Your task to perform on an android device: open app "WhatsApp Messenger" (install if not already installed) and enter user name: "cartons@outlook.com" and password: "approximated" Image 0: 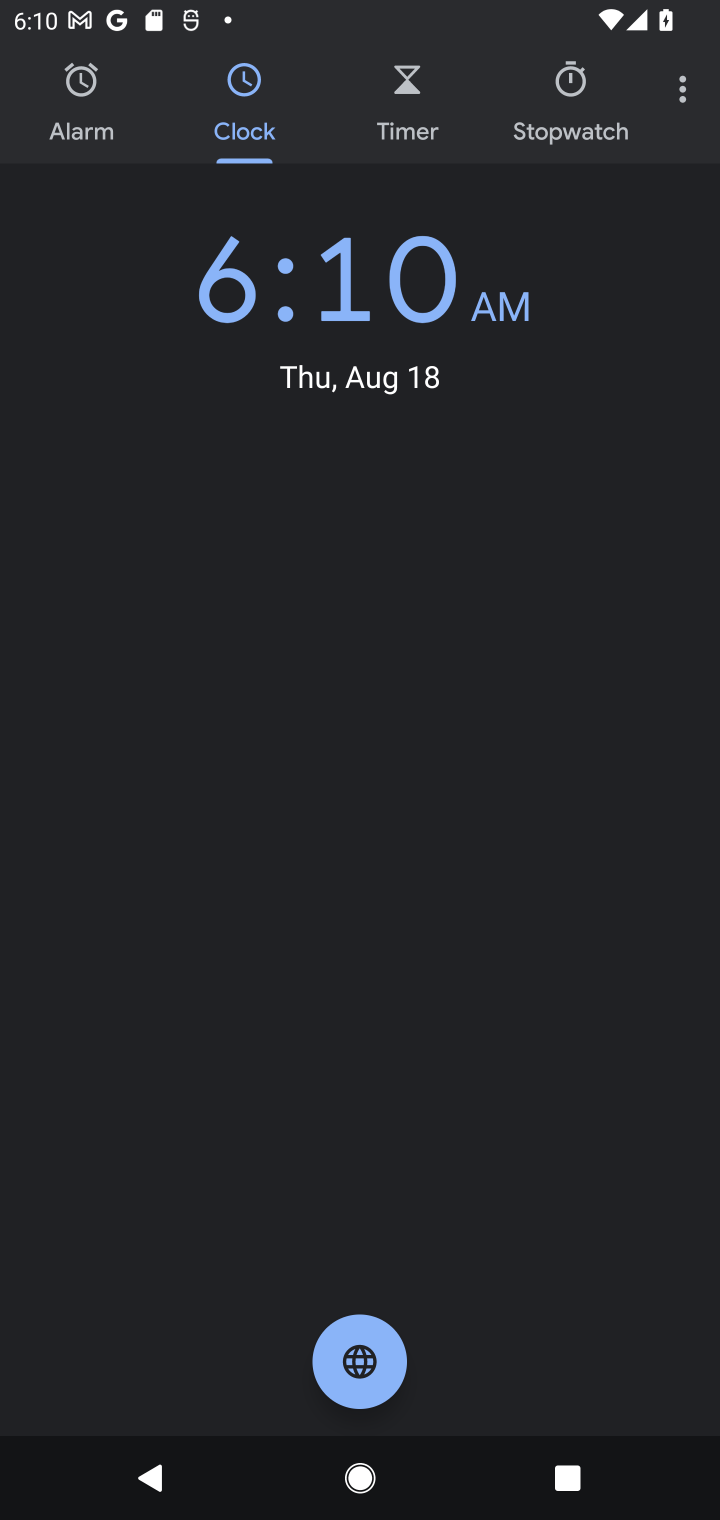
Step 0: press home button
Your task to perform on an android device: open app "WhatsApp Messenger" (install if not already installed) and enter user name: "cartons@outlook.com" and password: "approximated" Image 1: 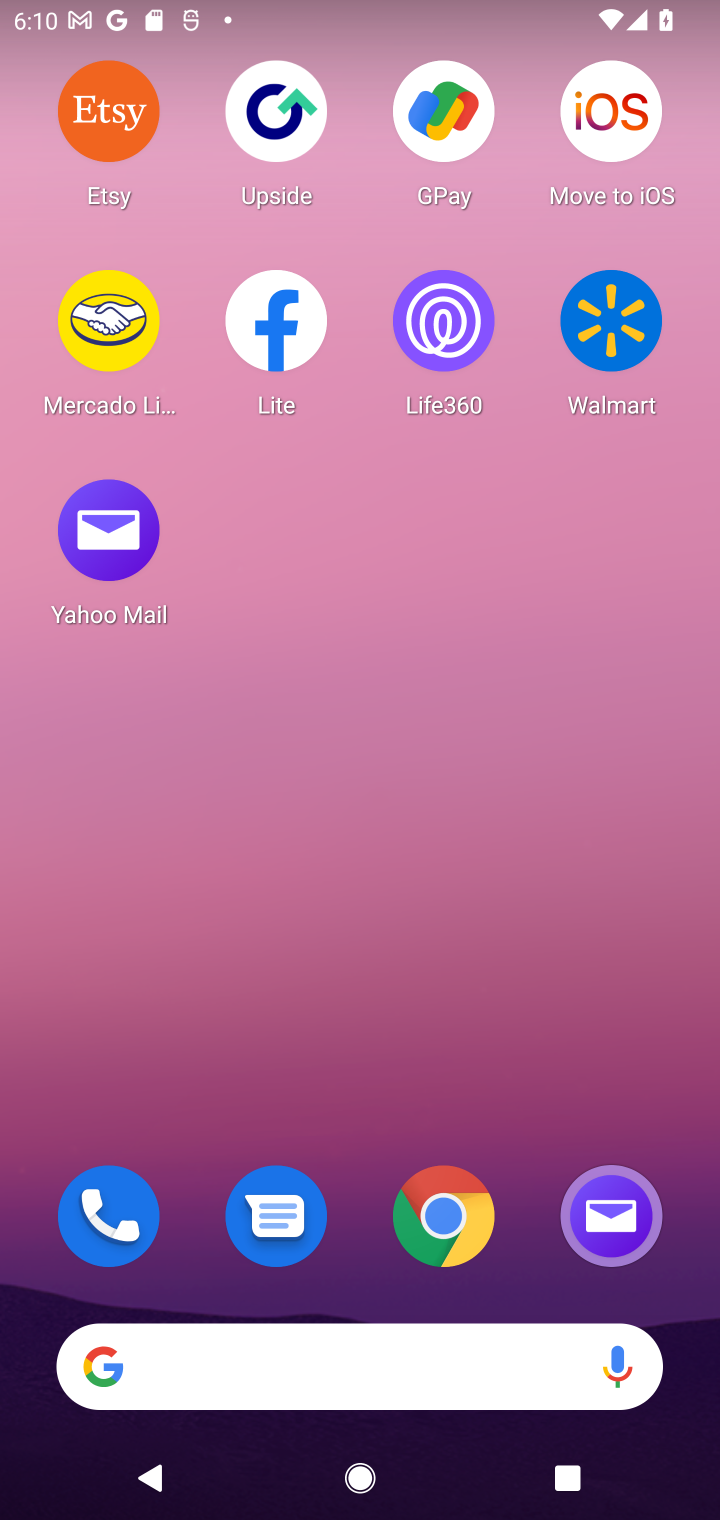
Step 1: drag from (519, 1281) to (510, 398)
Your task to perform on an android device: open app "WhatsApp Messenger" (install if not already installed) and enter user name: "cartons@outlook.com" and password: "approximated" Image 2: 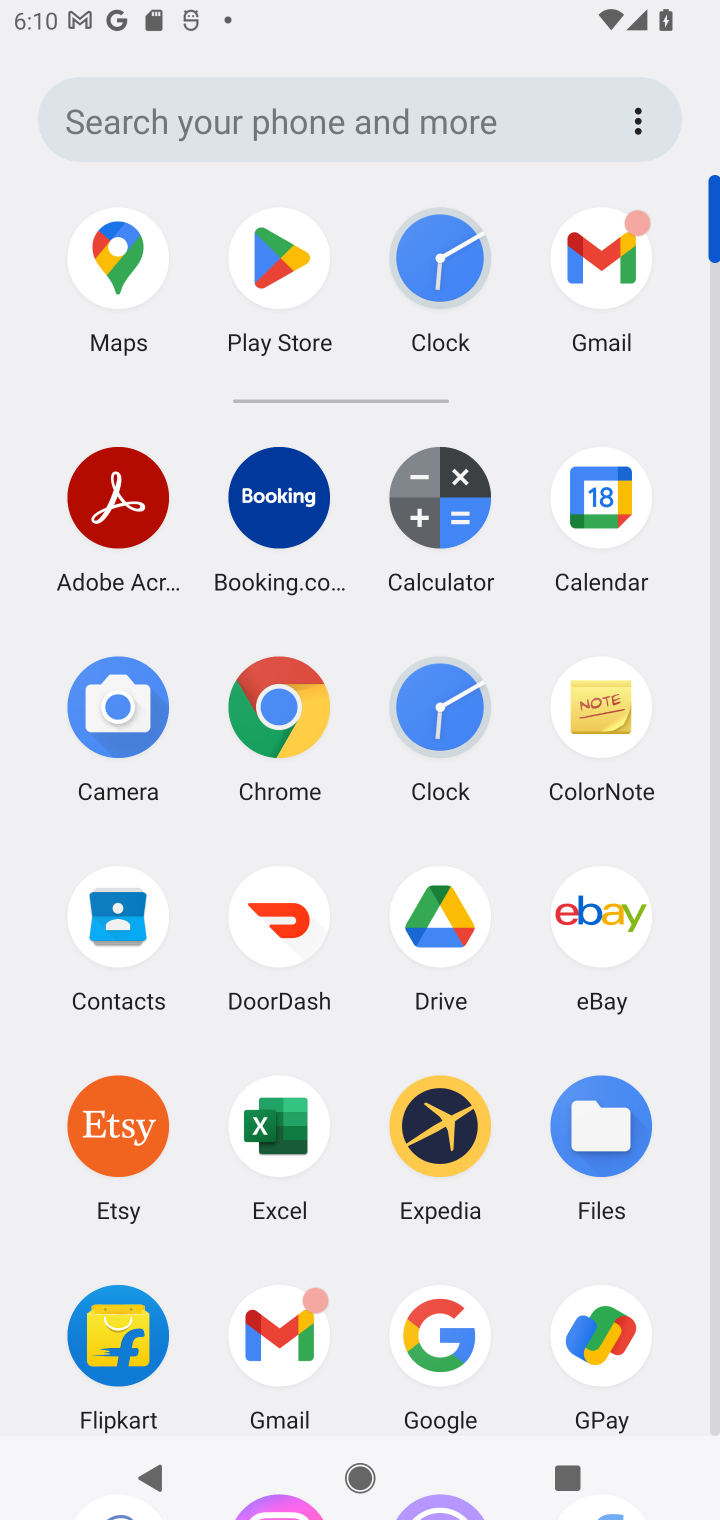
Step 2: drag from (535, 1331) to (508, 480)
Your task to perform on an android device: open app "WhatsApp Messenger" (install if not already installed) and enter user name: "cartons@outlook.com" and password: "approximated" Image 3: 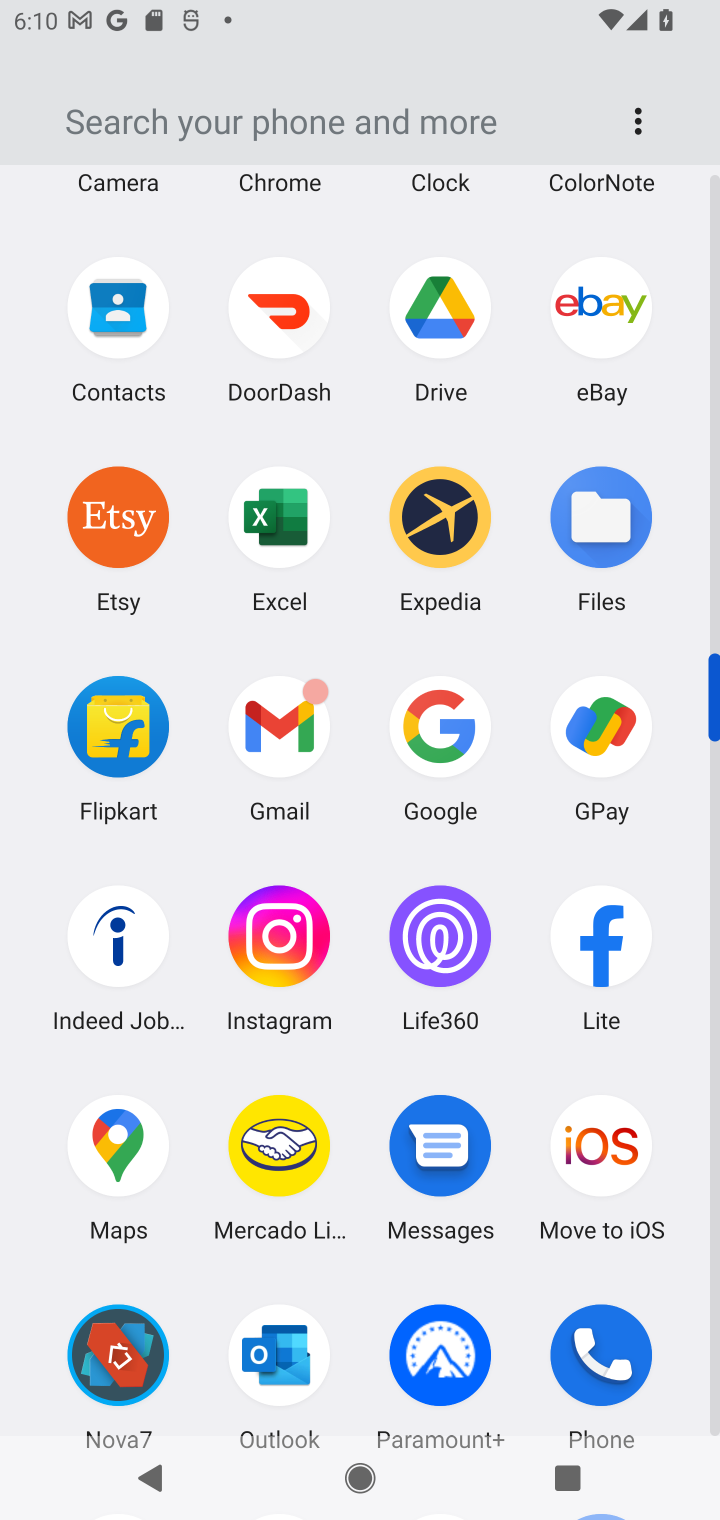
Step 3: drag from (520, 1250) to (526, 557)
Your task to perform on an android device: open app "WhatsApp Messenger" (install if not already installed) and enter user name: "cartons@outlook.com" and password: "approximated" Image 4: 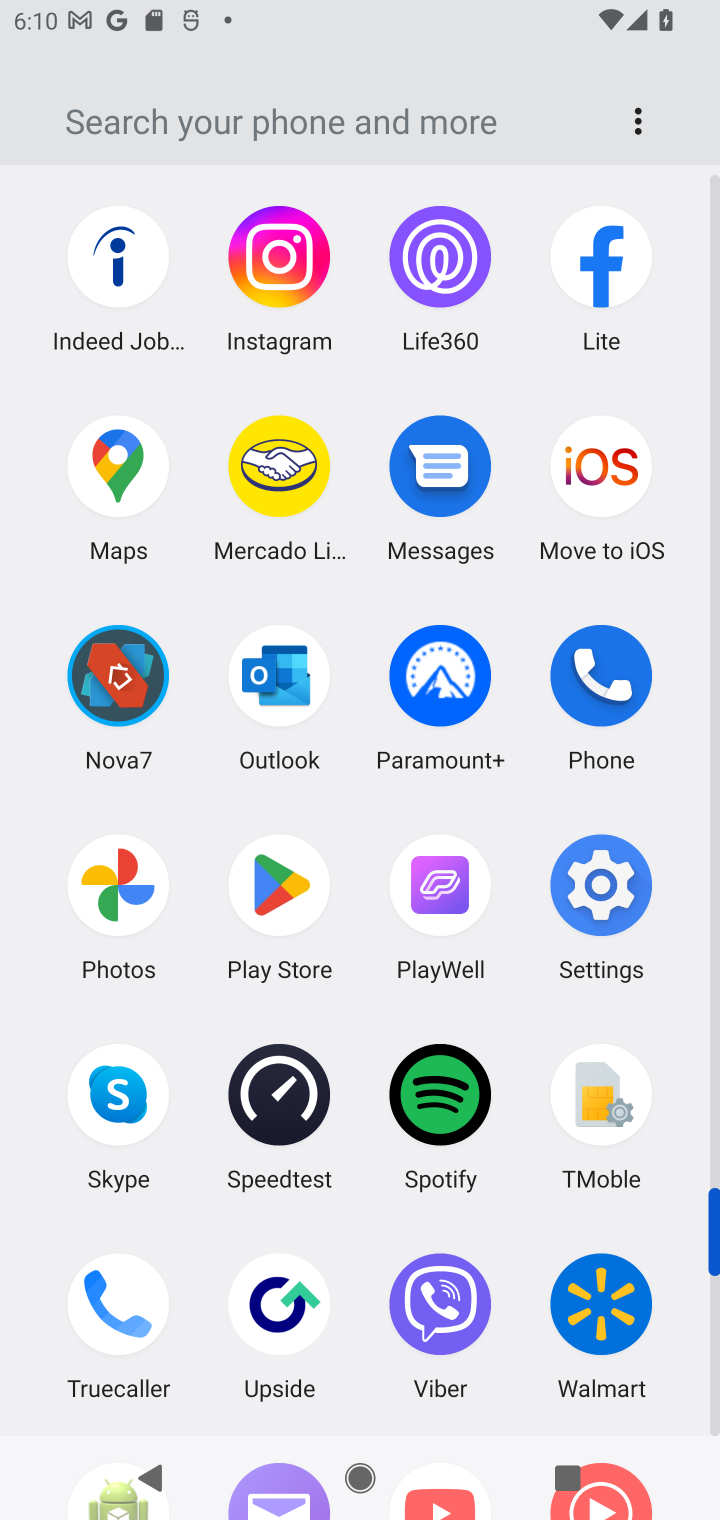
Step 4: drag from (517, 1392) to (526, 1119)
Your task to perform on an android device: open app "WhatsApp Messenger" (install if not already installed) and enter user name: "cartons@outlook.com" and password: "approximated" Image 5: 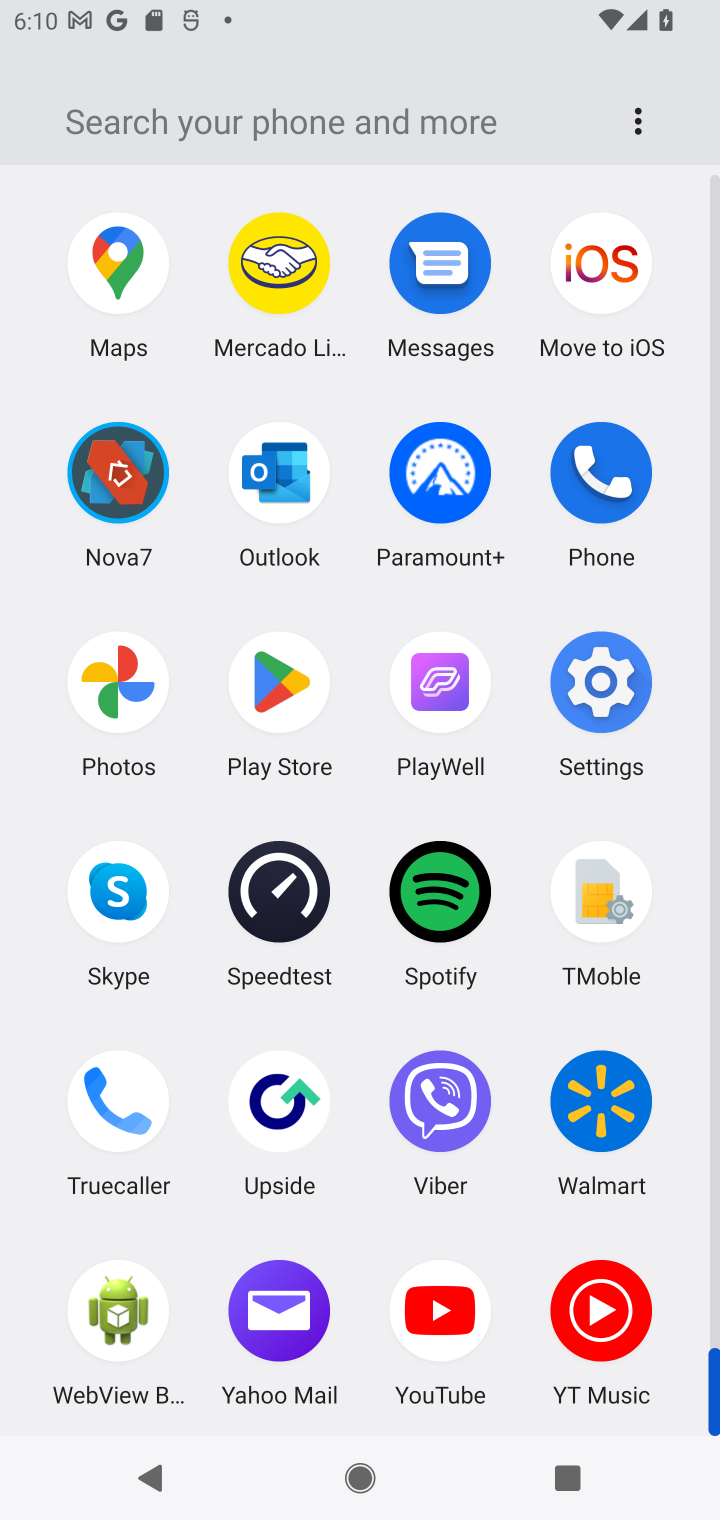
Step 5: click (277, 680)
Your task to perform on an android device: open app "WhatsApp Messenger" (install if not already installed) and enter user name: "cartons@outlook.com" and password: "approximated" Image 6: 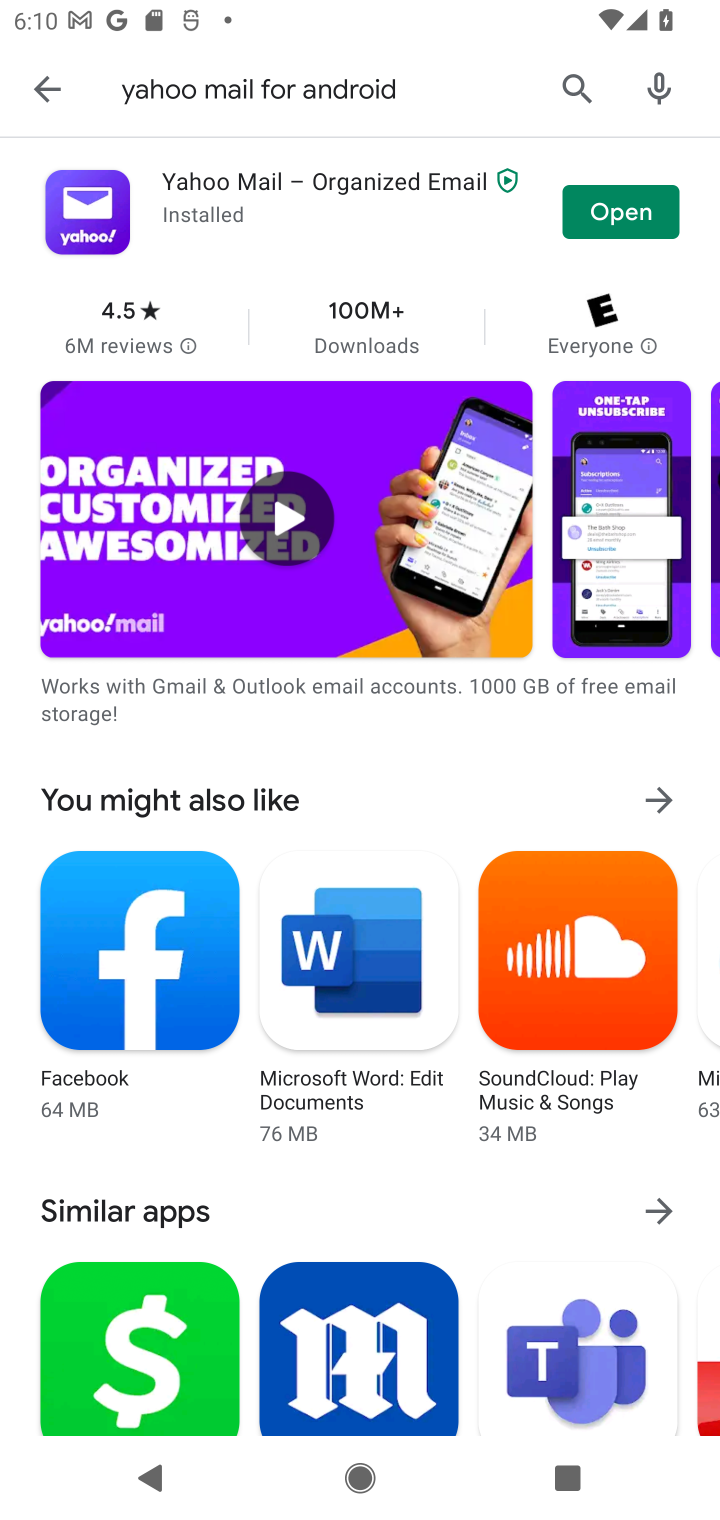
Step 6: click (573, 80)
Your task to perform on an android device: open app "WhatsApp Messenger" (install if not already installed) and enter user name: "cartons@outlook.com" and password: "approximated" Image 7: 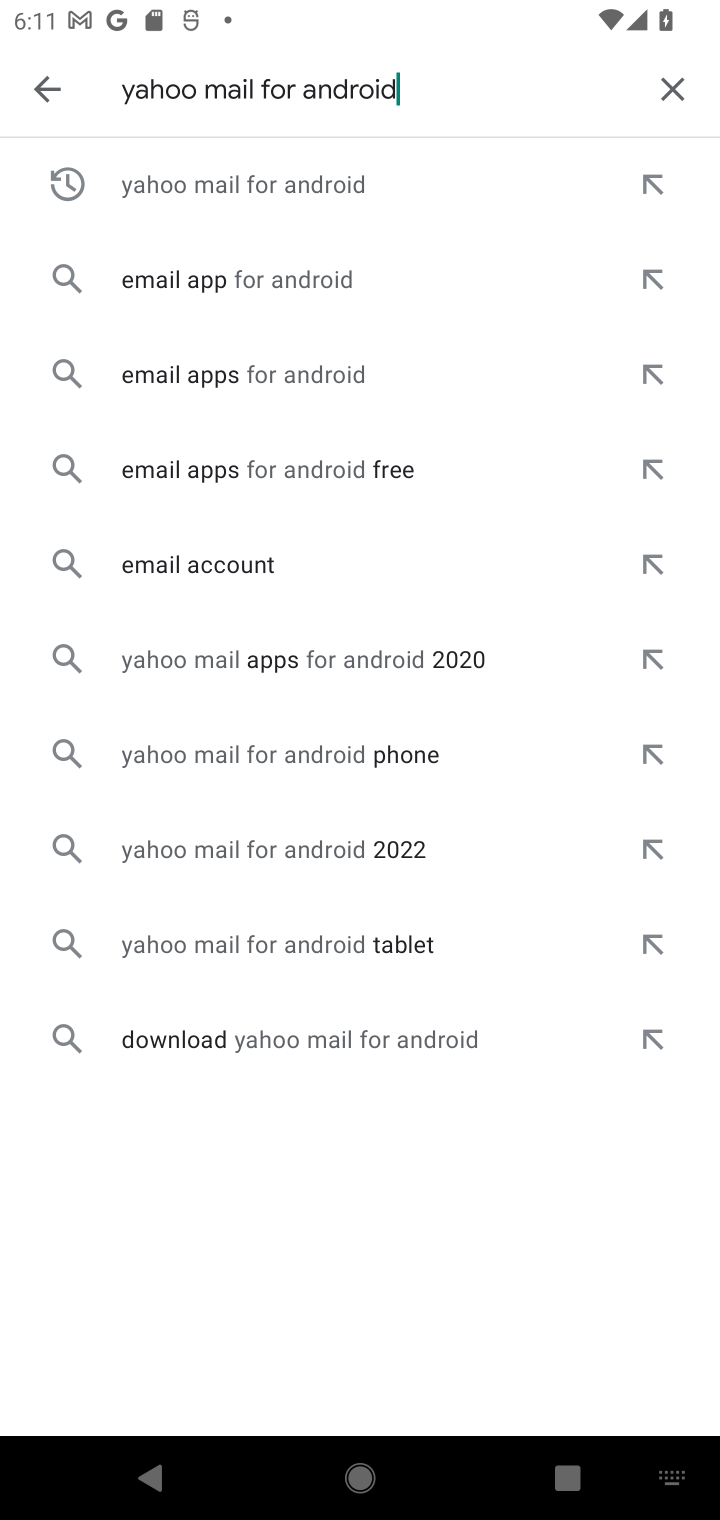
Step 7: click (675, 84)
Your task to perform on an android device: open app "WhatsApp Messenger" (install if not already installed) and enter user name: "cartons@outlook.com" and password: "approximated" Image 8: 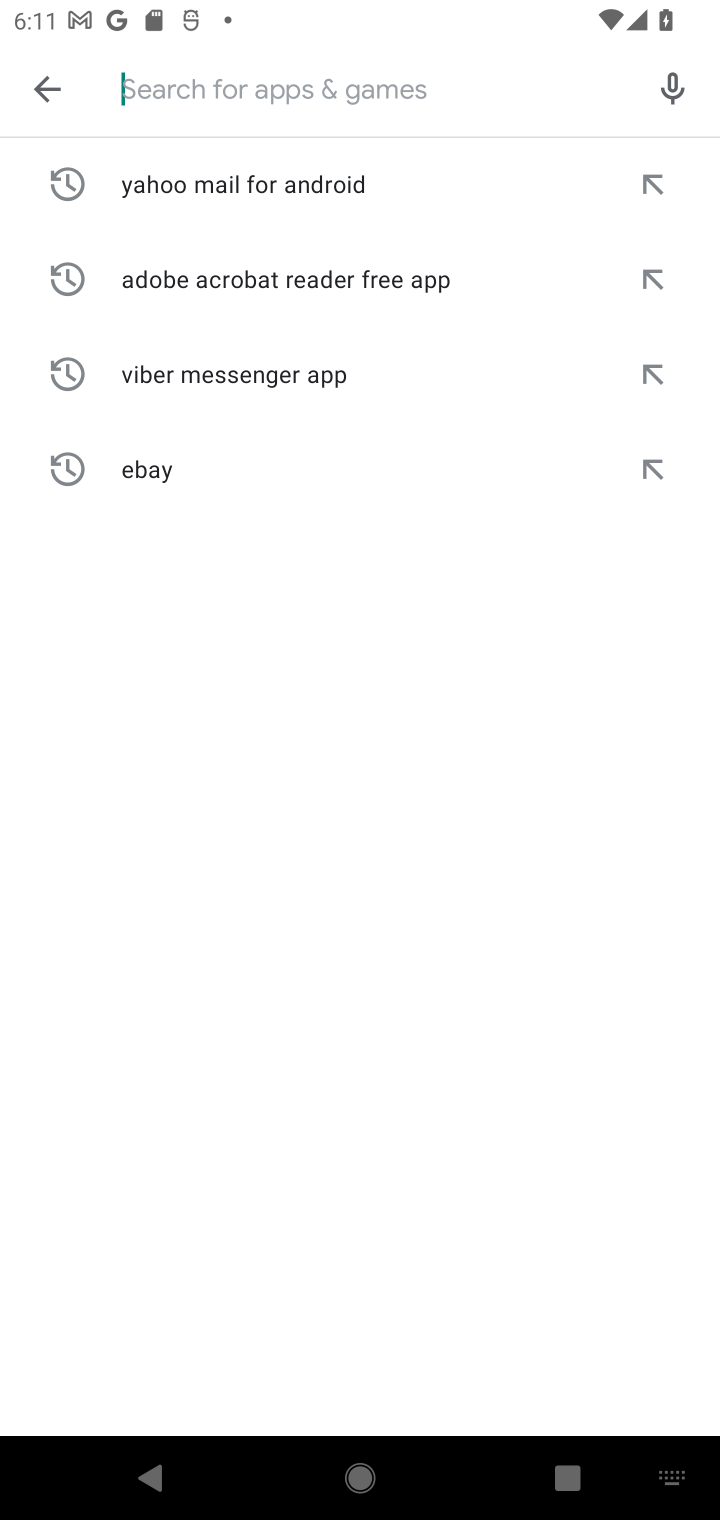
Step 8: type "WhatsApp Messenger"
Your task to perform on an android device: open app "WhatsApp Messenger" (install if not already installed) and enter user name: "cartons@outlook.com" and password: "approximated" Image 9: 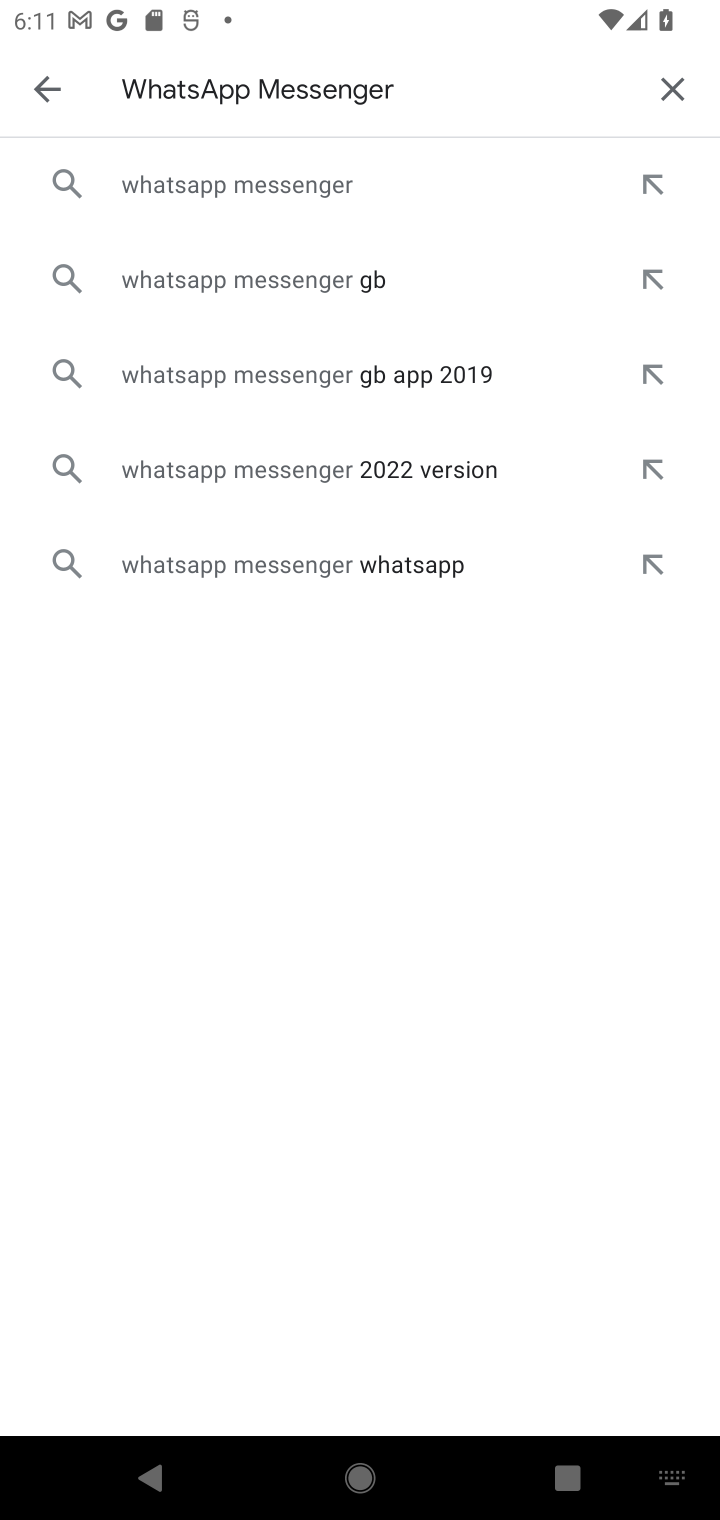
Step 9: click (207, 168)
Your task to perform on an android device: open app "WhatsApp Messenger" (install if not already installed) and enter user name: "cartons@outlook.com" and password: "approximated" Image 10: 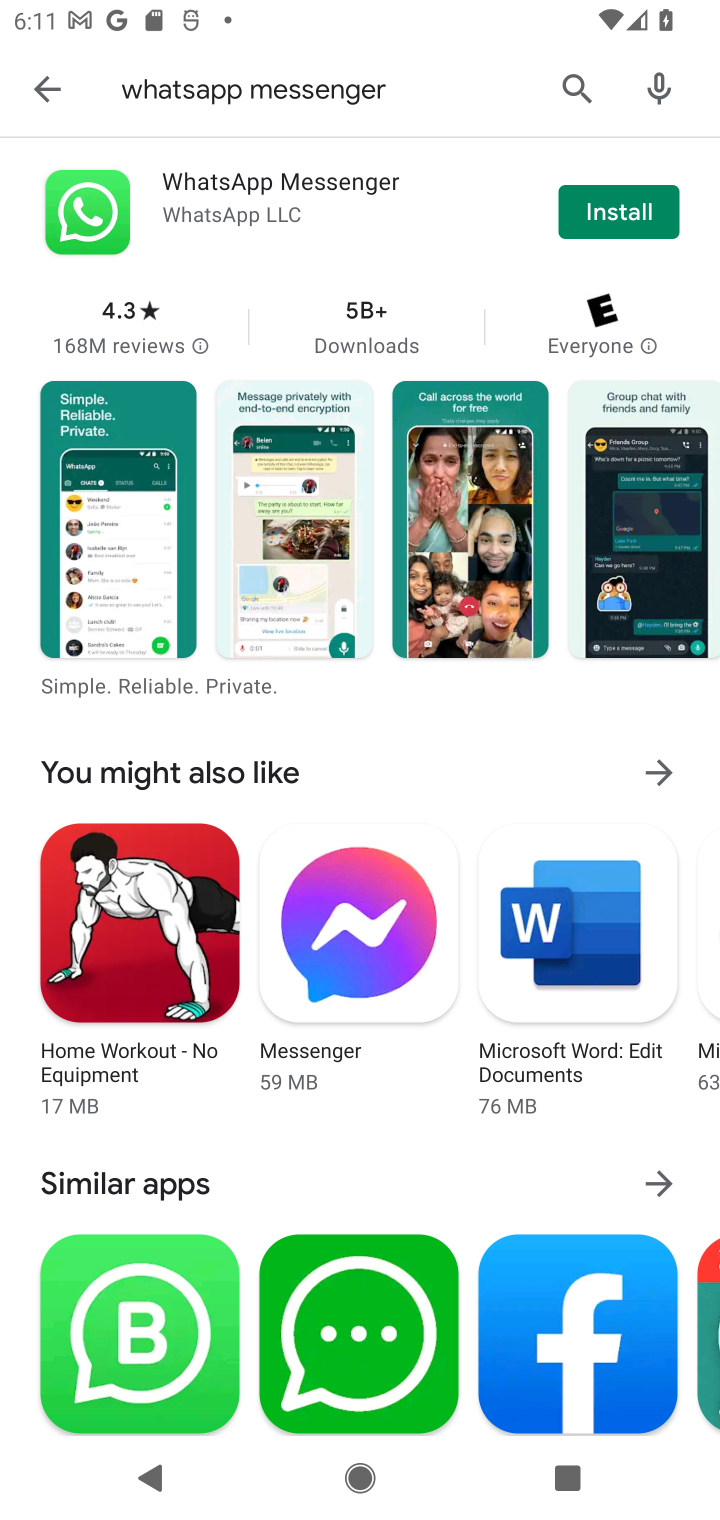
Step 10: click (624, 216)
Your task to perform on an android device: open app "WhatsApp Messenger" (install if not already installed) and enter user name: "cartons@outlook.com" and password: "approximated" Image 11: 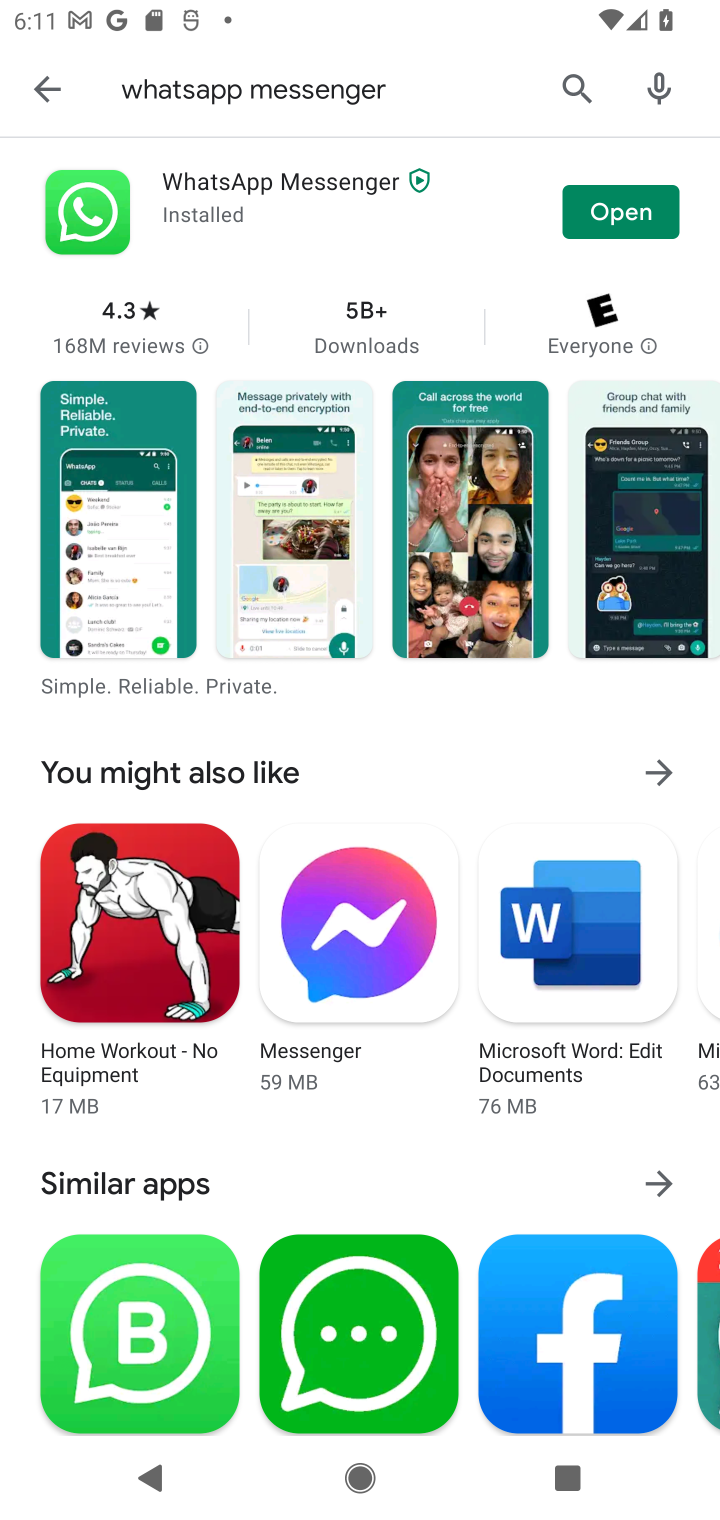
Step 11: click (617, 211)
Your task to perform on an android device: open app "WhatsApp Messenger" (install if not already installed) and enter user name: "cartons@outlook.com" and password: "approximated" Image 12: 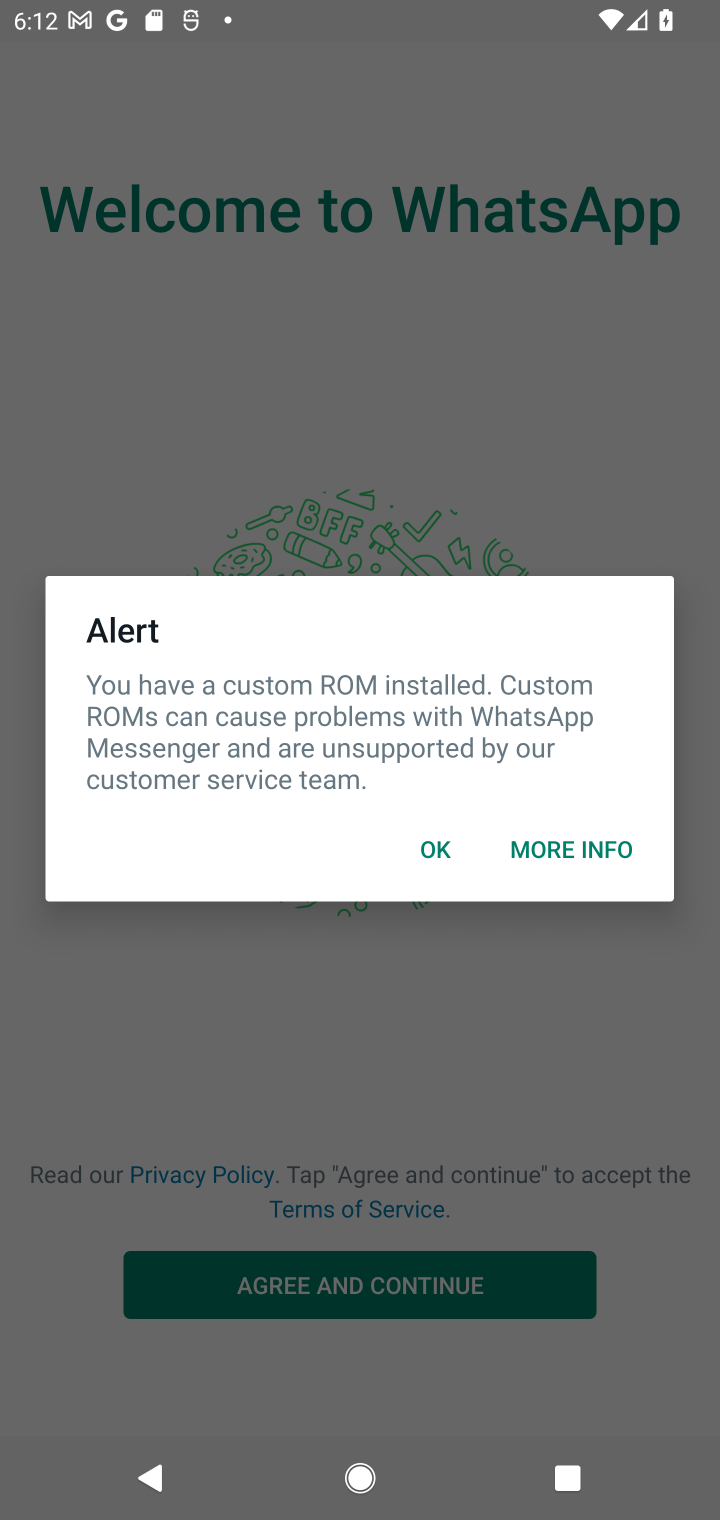
Step 12: click (433, 851)
Your task to perform on an android device: open app "WhatsApp Messenger" (install if not already installed) and enter user name: "cartons@outlook.com" and password: "approximated" Image 13: 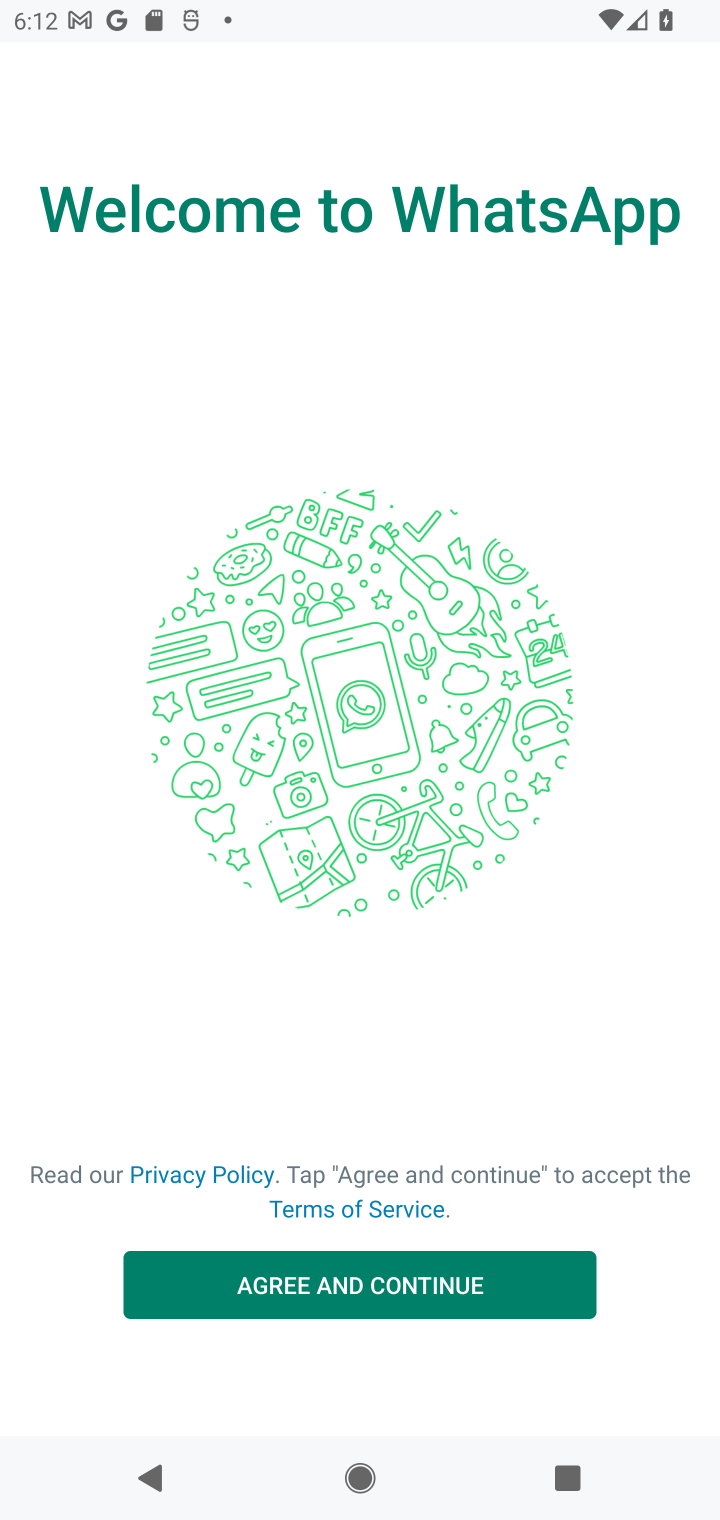
Step 13: click (338, 1292)
Your task to perform on an android device: open app "WhatsApp Messenger" (install if not already installed) and enter user name: "cartons@outlook.com" and password: "approximated" Image 14: 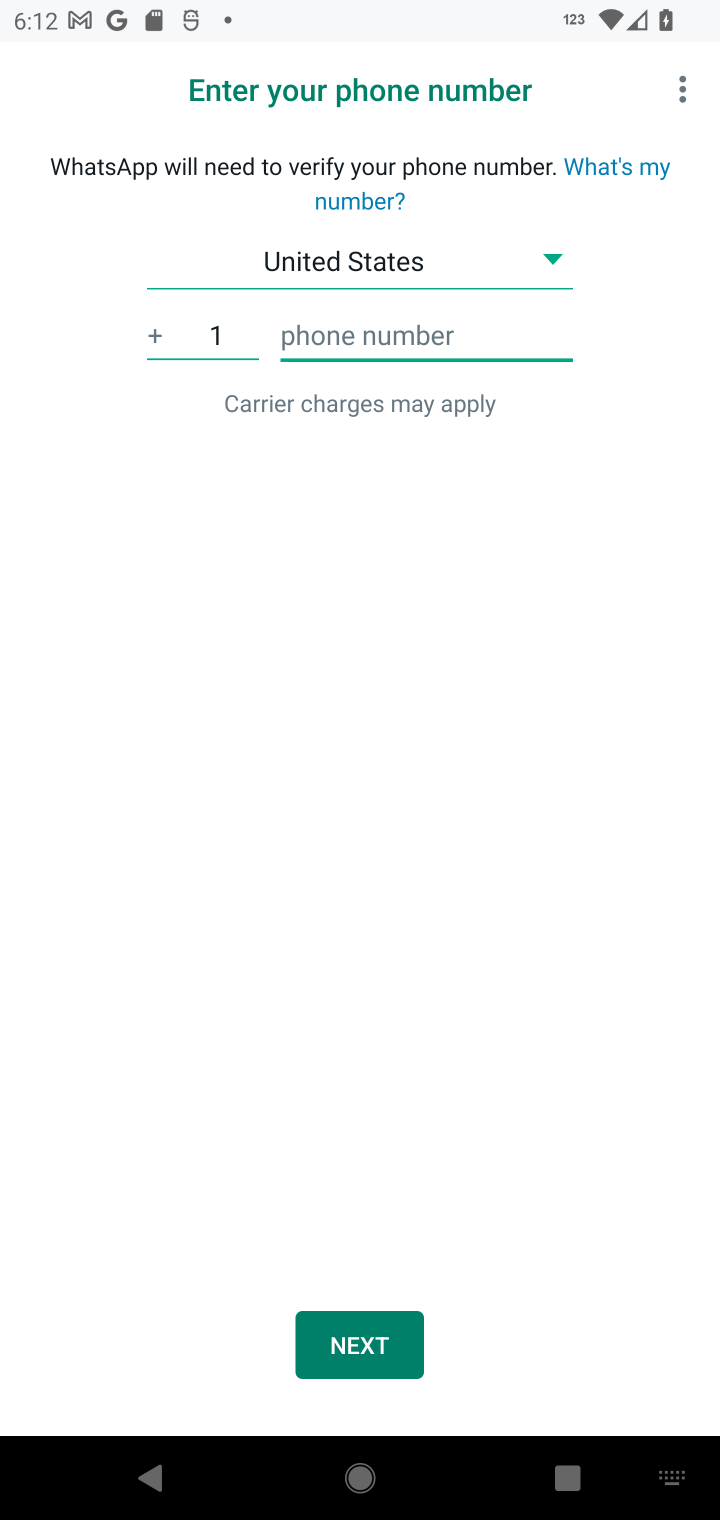
Step 14: click (670, 97)
Your task to perform on an android device: open app "WhatsApp Messenger" (install if not already installed) and enter user name: "cartons@outlook.com" and password: "approximated" Image 15: 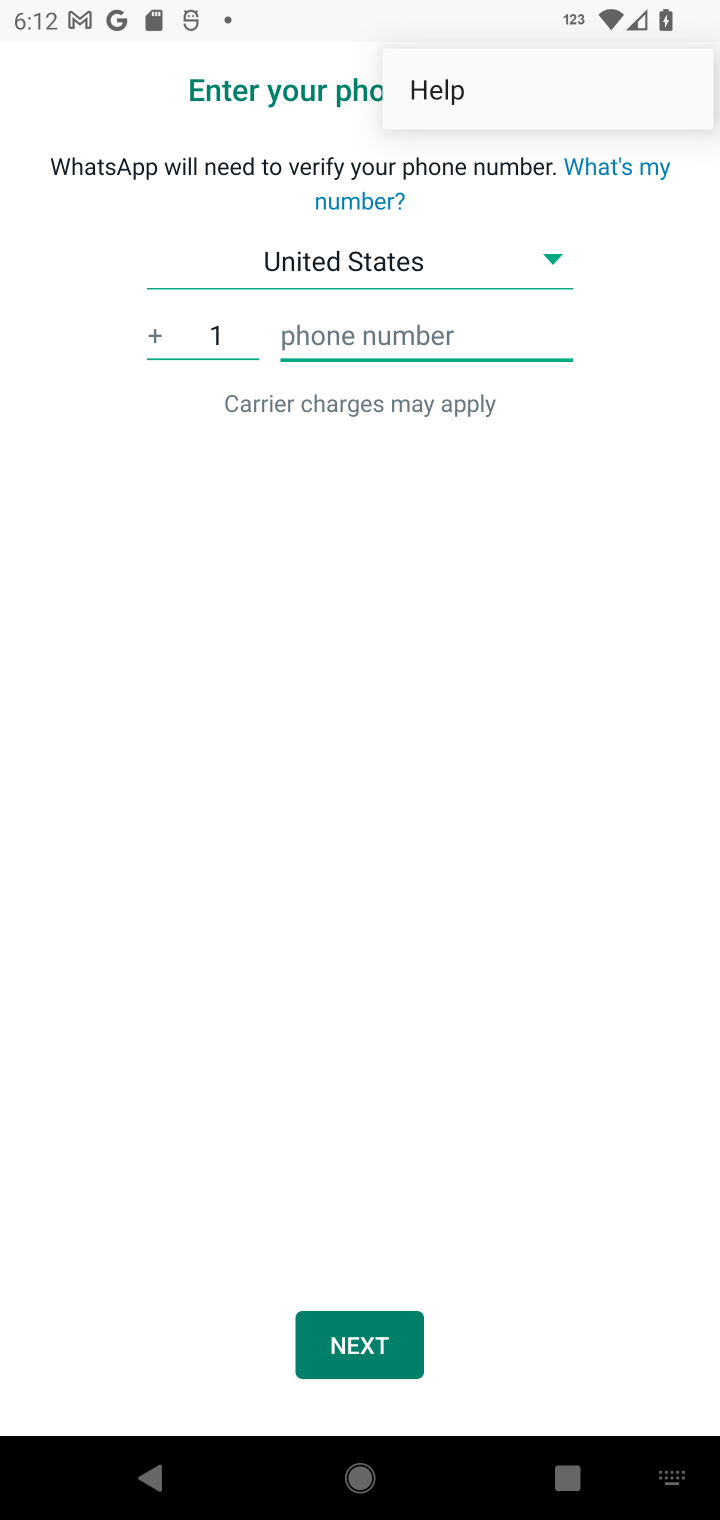
Step 15: click (470, 624)
Your task to perform on an android device: open app "WhatsApp Messenger" (install if not already installed) and enter user name: "cartons@outlook.com" and password: "approximated" Image 16: 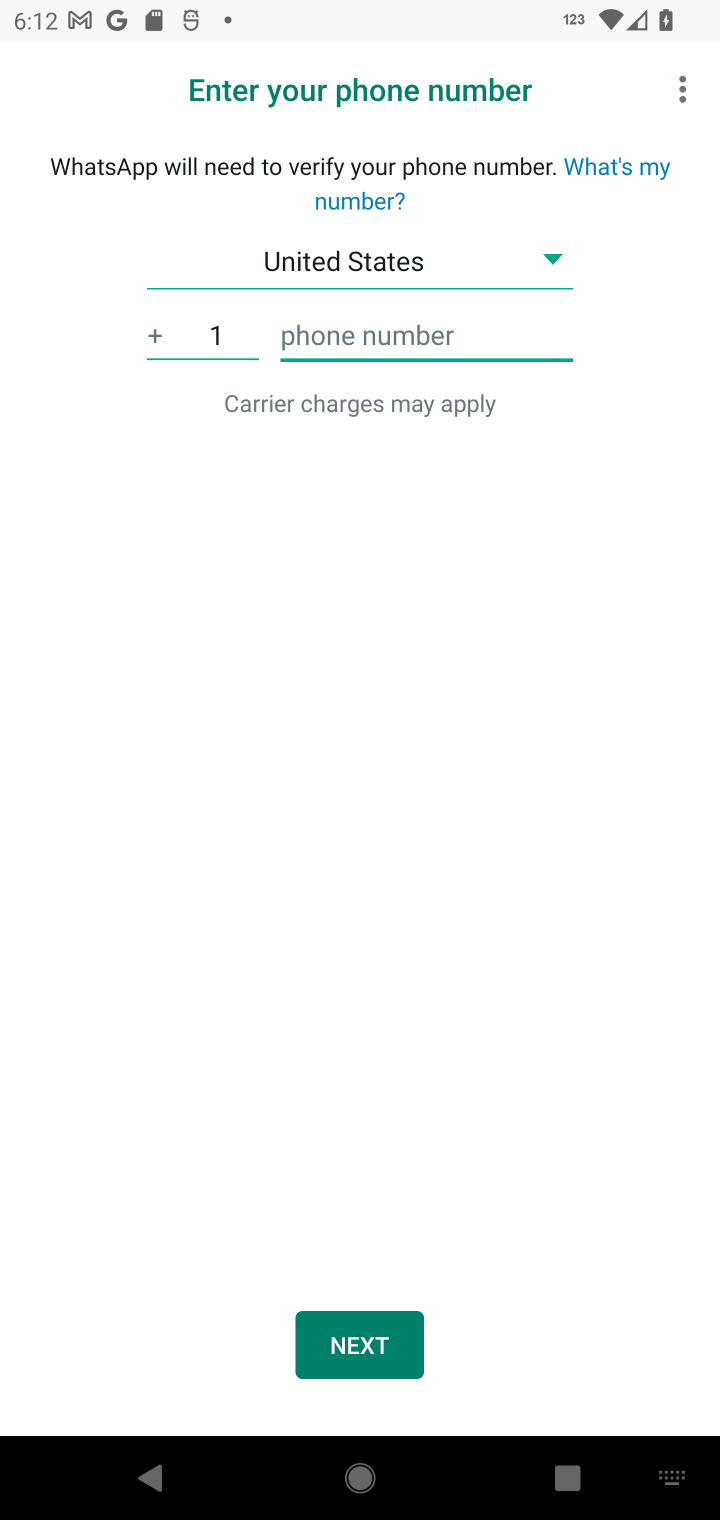
Step 16: click (365, 1344)
Your task to perform on an android device: open app "WhatsApp Messenger" (install if not already installed) and enter user name: "cartons@outlook.com" and password: "approximated" Image 17: 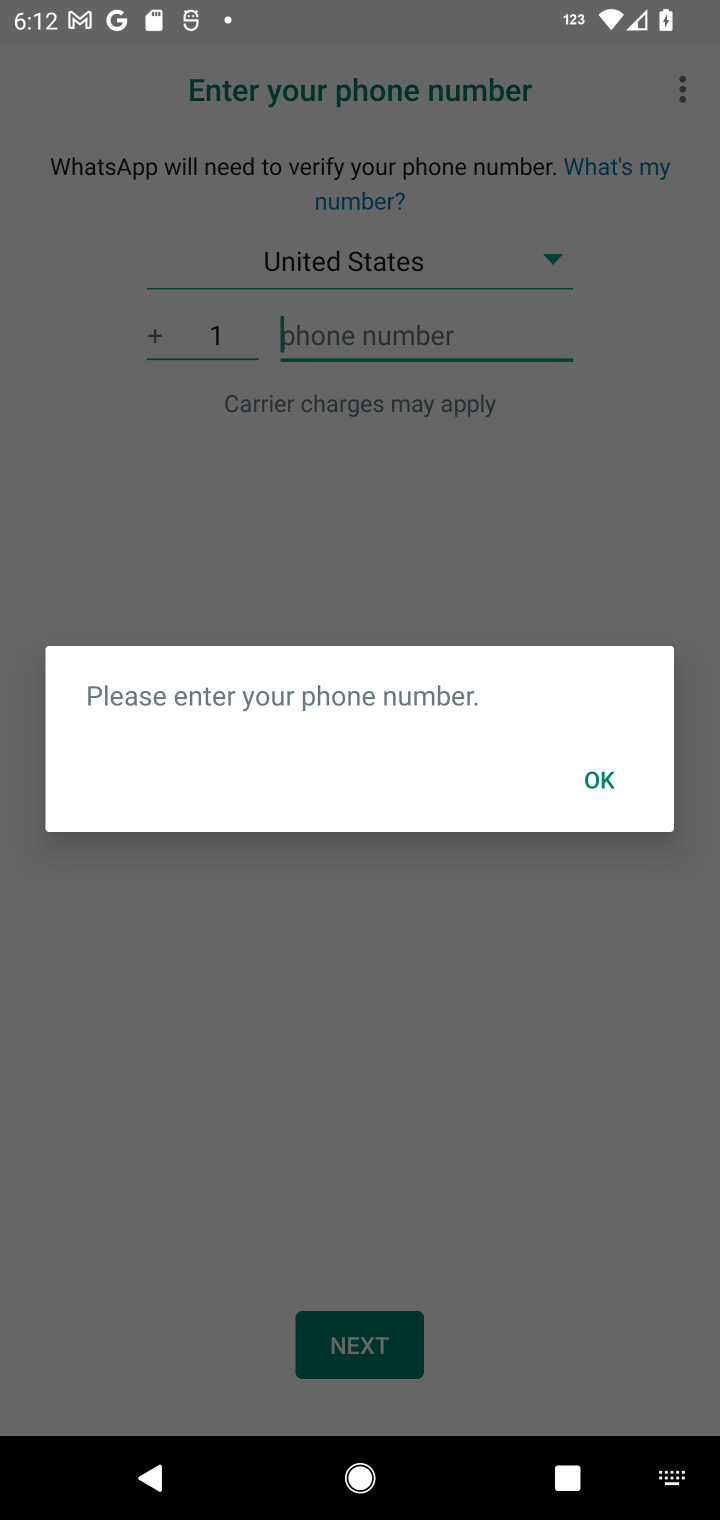
Step 17: task complete